Your task to perform on an android device: turn on bluetooth scan Image 0: 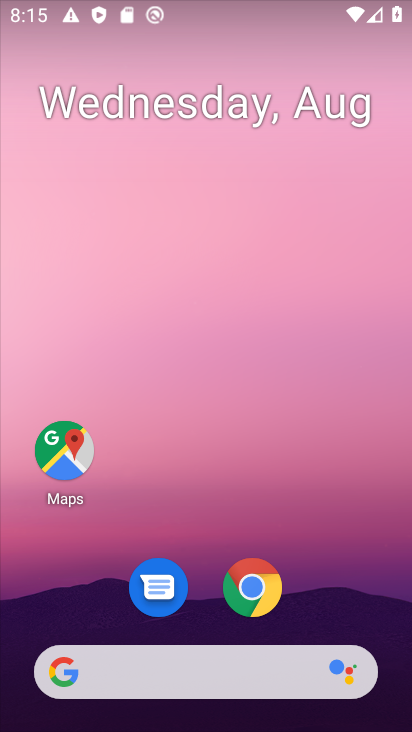
Step 0: drag from (273, 560) to (258, 227)
Your task to perform on an android device: turn on bluetooth scan Image 1: 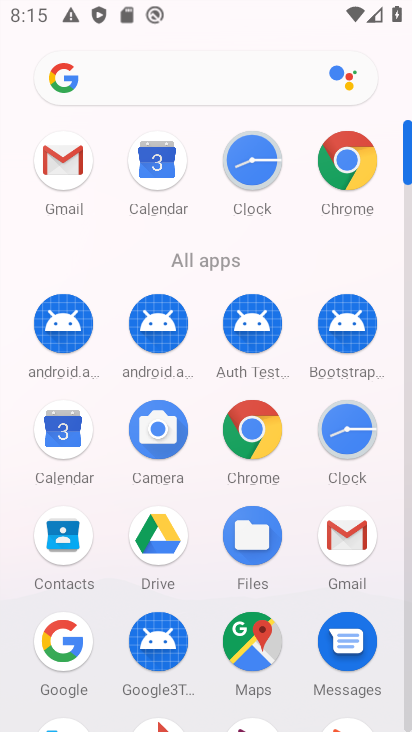
Step 1: drag from (187, 539) to (110, 317)
Your task to perform on an android device: turn on bluetooth scan Image 2: 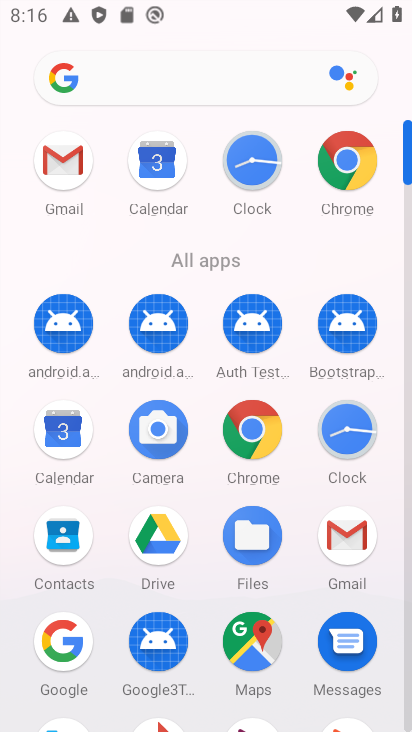
Step 2: drag from (293, 544) to (282, 303)
Your task to perform on an android device: turn on bluetooth scan Image 3: 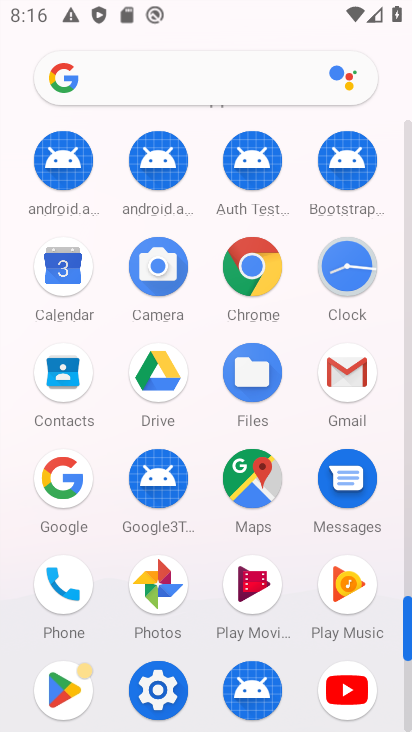
Step 3: drag from (286, 280) to (266, 0)
Your task to perform on an android device: turn on bluetooth scan Image 4: 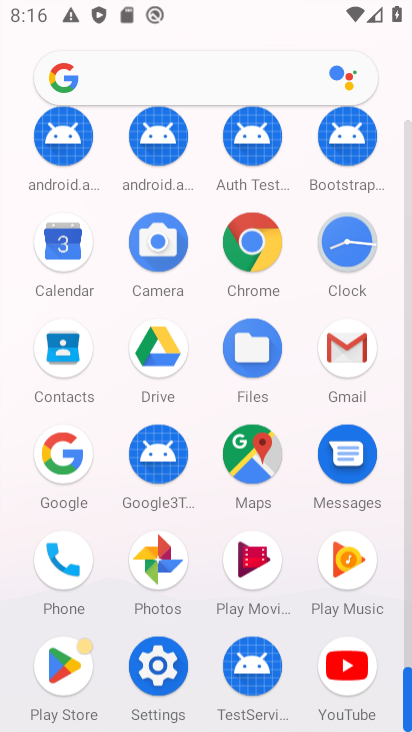
Step 4: drag from (269, 470) to (264, 121)
Your task to perform on an android device: turn on bluetooth scan Image 5: 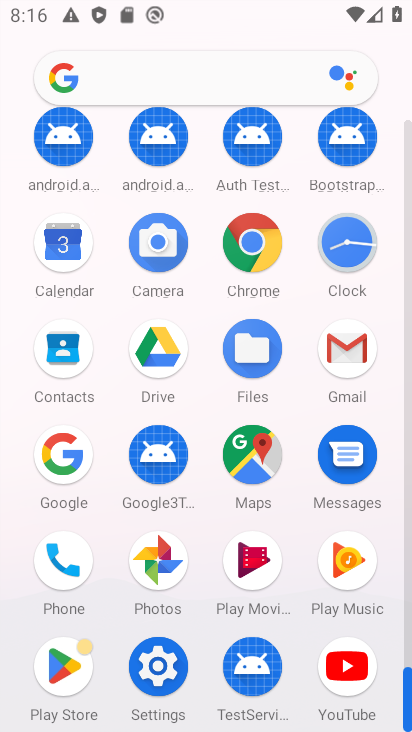
Step 5: click (156, 668)
Your task to perform on an android device: turn on bluetooth scan Image 6: 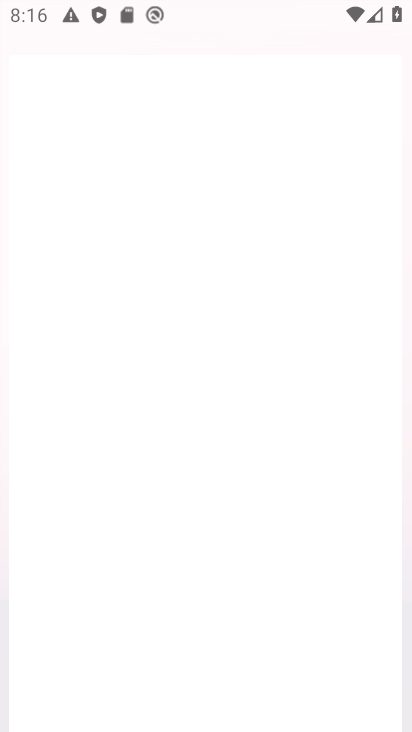
Step 6: click (153, 670)
Your task to perform on an android device: turn on bluetooth scan Image 7: 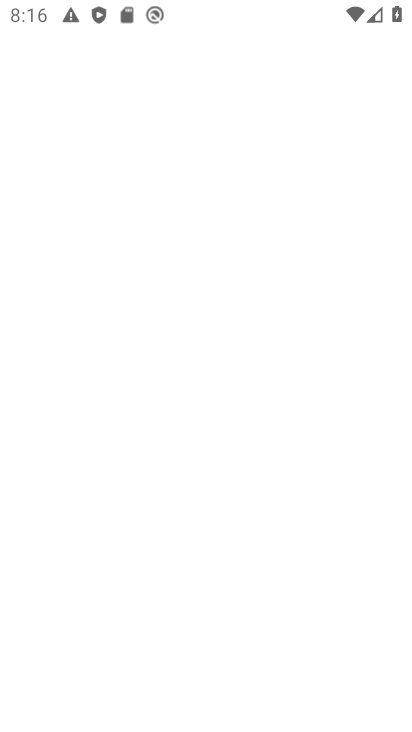
Step 7: click (152, 671)
Your task to perform on an android device: turn on bluetooth scan Image 8: 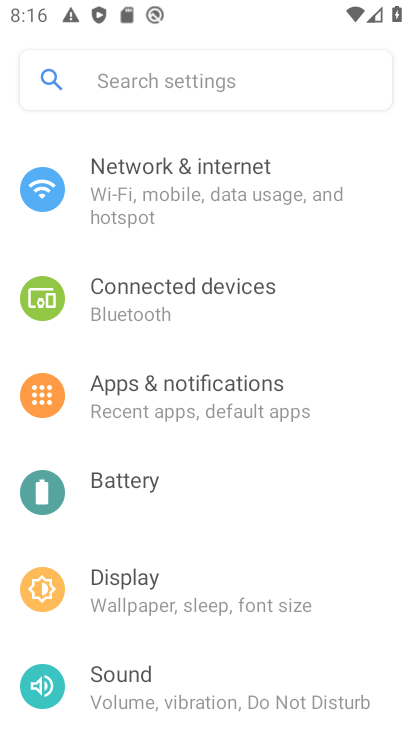
Step 8: click (153, 672)
Your task to perform on an android device: turn on bluetooth scan Image 9: 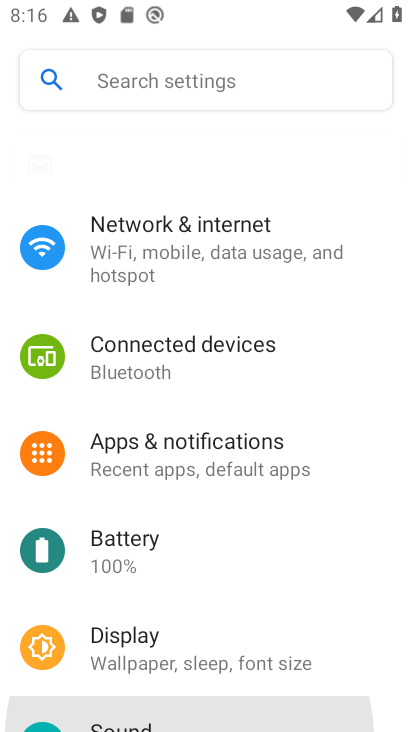
Step 9: click (153, 672)
Your task to perform on an android device: turn on bluetooth scan Image 10: 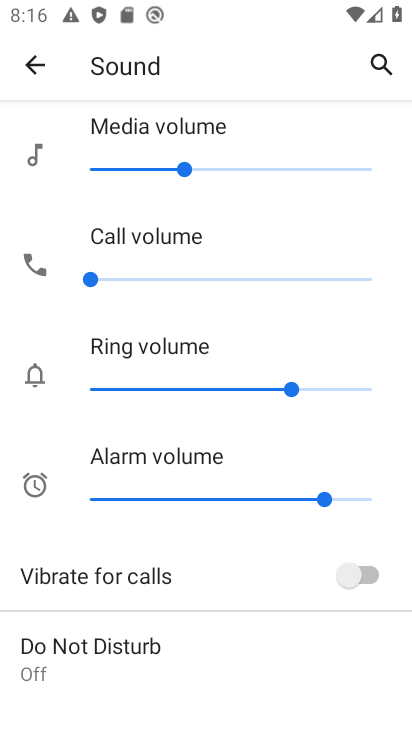
Step 10: click (34, 72)
Your task to perform on an android device: turn on bluetooth scan Image 11: 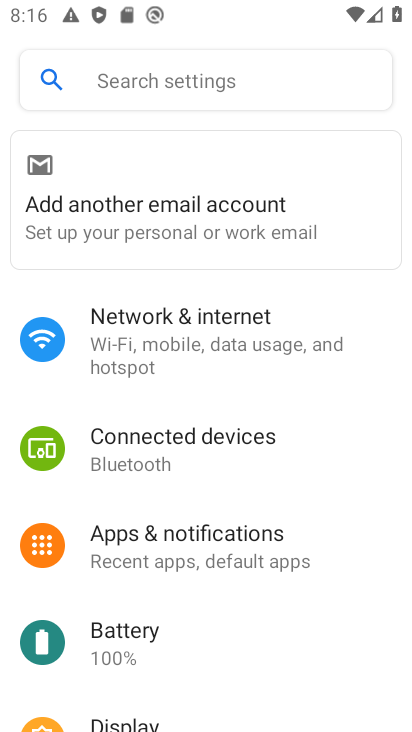
Step 11: drag from (148, 489) to (159, 203)
Your task to perform on an android device: turn on bluetooth scan Image 12: 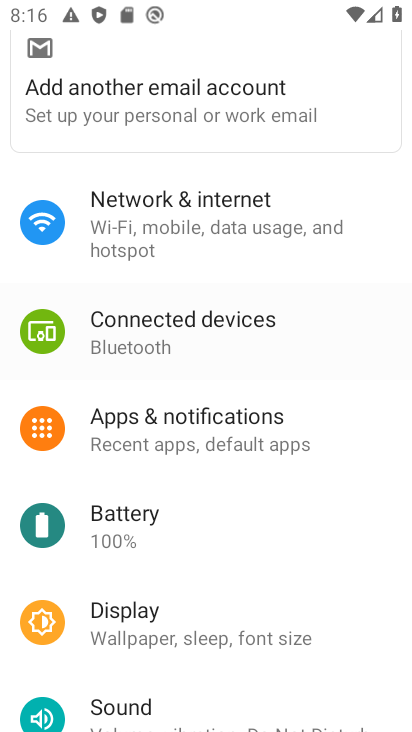
Step 12: drag from (60, 637) to (105, 271)
Your task to perform on an android device: turn on bluetooth scan Image 13: 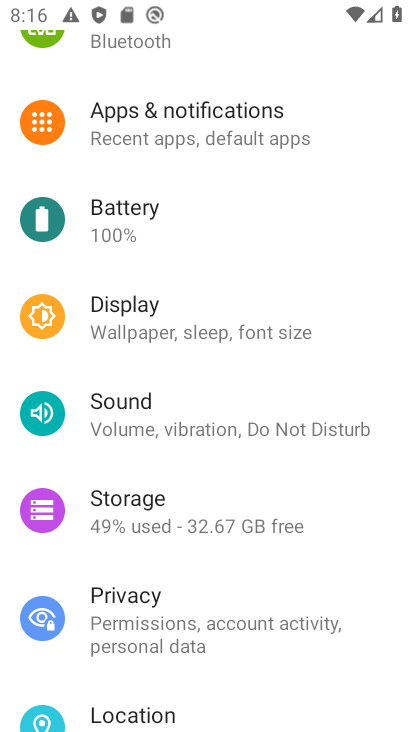
Step 13: drag from (126, 496) to (93, 103)
Your task to perform on an android device: turn on bluetooth scan Image 14: 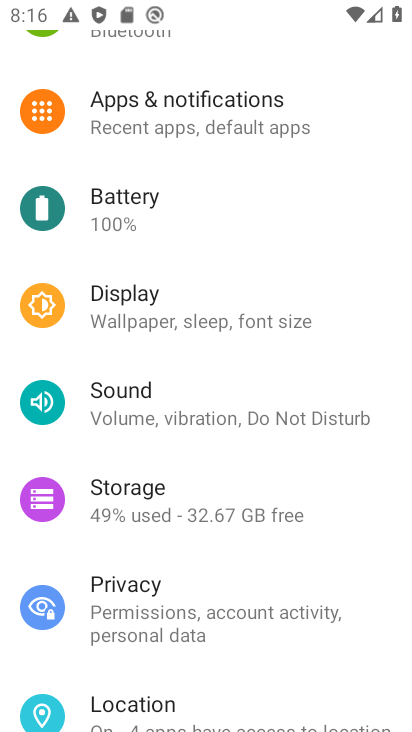
Step 14: drag from (242, 572) to (177, 94)
Your task to perform on an android device: turn on bluetooth scan Image 15: 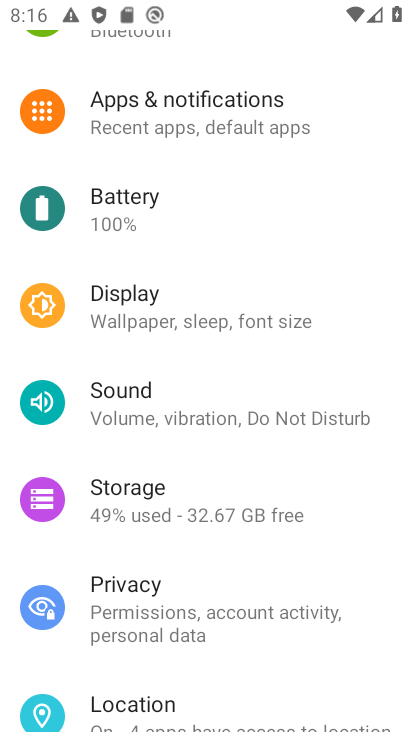
Step 15: drag from (198, 598) to (149, 295)
Your task to perform on an android device: turn on bluetooth scan Image 16: 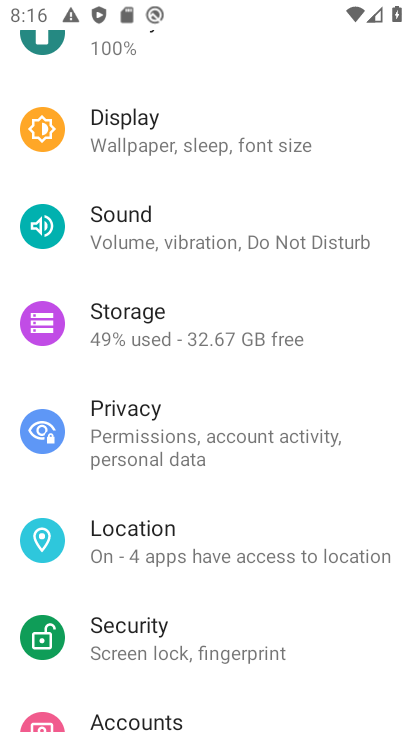
Step 16: drag from (167, 519) to (132, 127)
Your task to perform on an android device: turn on bluetooth scan Image 17: 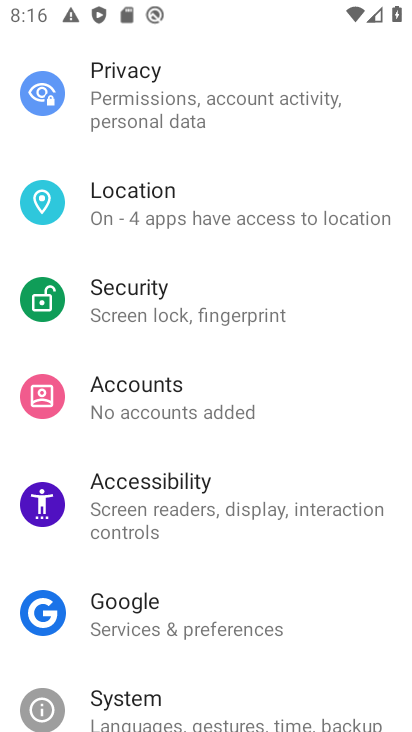
Step 17: drag from (151, 514) to (151, 274)
Your task to perform on an android device: turn on bluetooth scan Image 18: 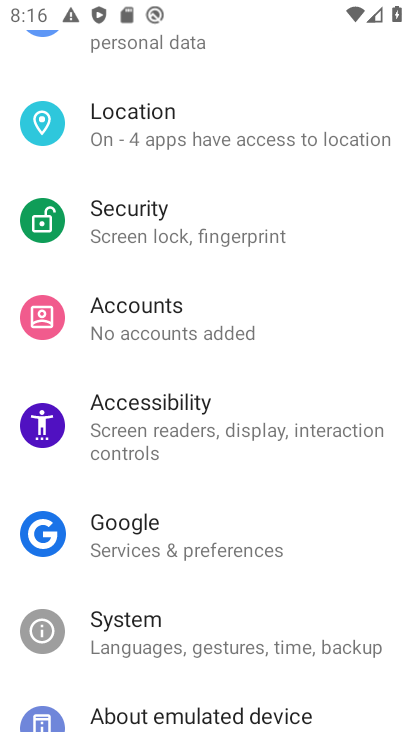
Step 18: drag from (171, 224) to (245, 684)
Your task to perform on an android device: turn on bluetooth scan Image 19: 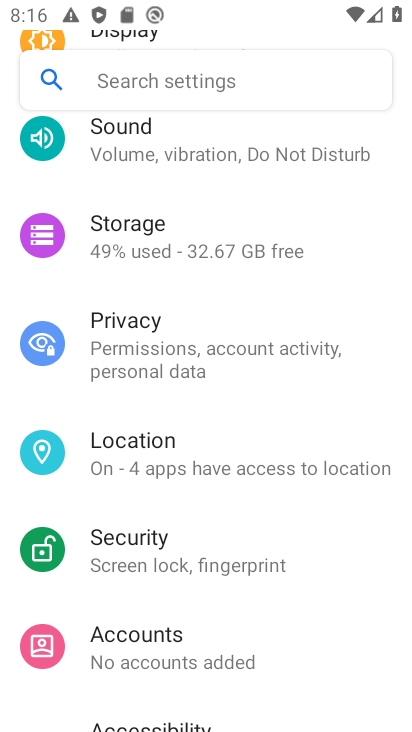
Step 19: drag from (178, 292) to (213, 629)
Your task to perform on an android device: turn on bluetooth scan Image 20: 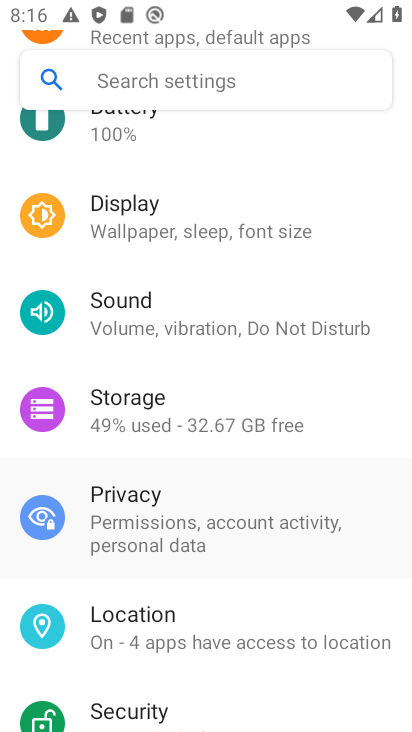
Step 20: drag from (155, 332) to (168, 639)
Your task to perform on an android device: turn on bluetooth scan Image 21: 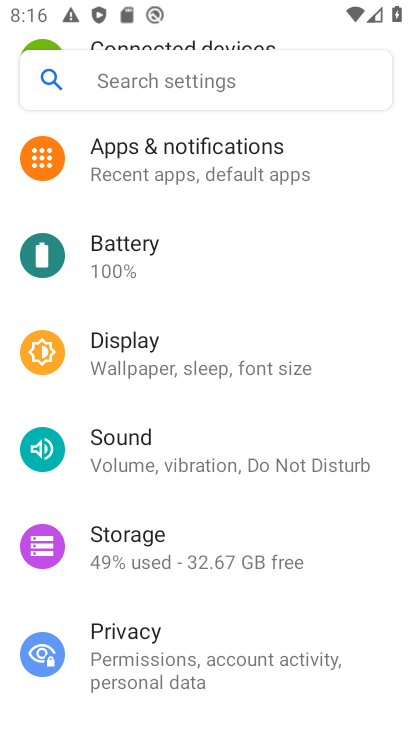
Step 21: drag from (137, 219) to (144, 588)
Your task to perform on an android device: turn on bluetooth scan Image 22: 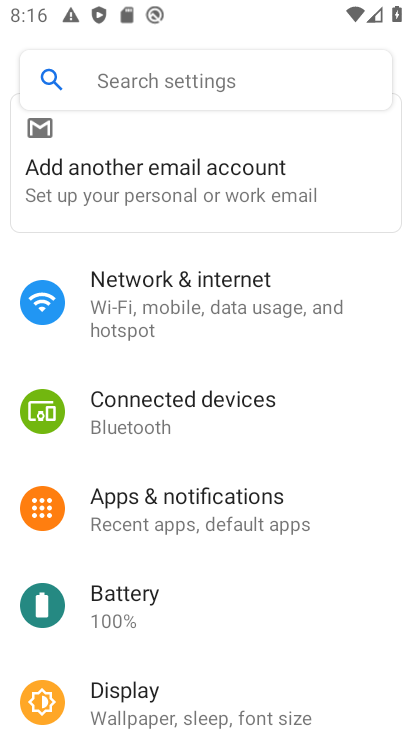
Step 22: drag from (124, 295) to (139, 602)
Your task to perform on an android device: turn on bluetooth scan Image 23: 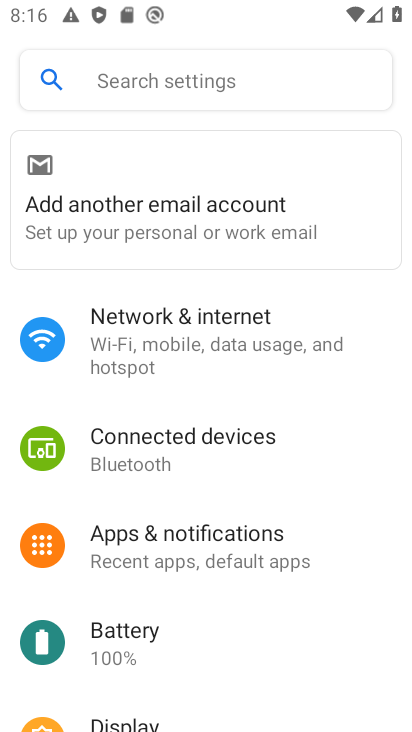
Step 23: drag from (136, 646) to (76, 211)
Your task to perform on an android device: turn on bluetooth scan Image 24: 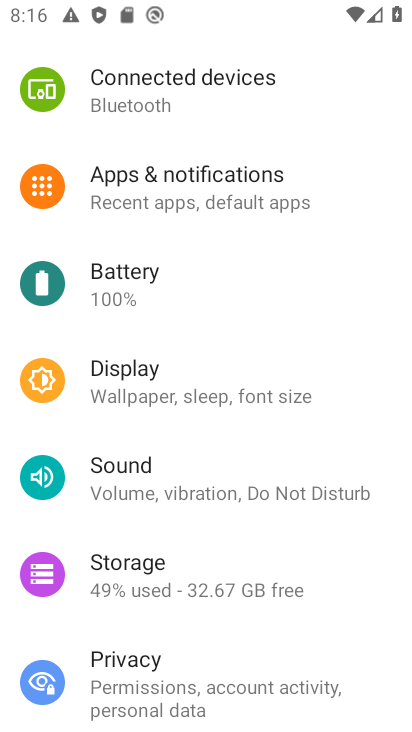
Step 24: drag from (176, 512) to (158, 133)
Your task to perform on an android device: turn on bluetooth scan Image 25: 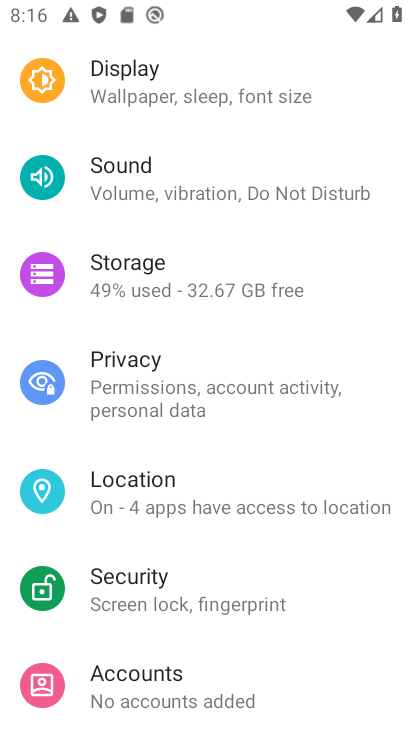
Step 25: drag from (242, 462) to (181, 115)
Your task to perform on an android device: turn on bluetooth scan Image 26: 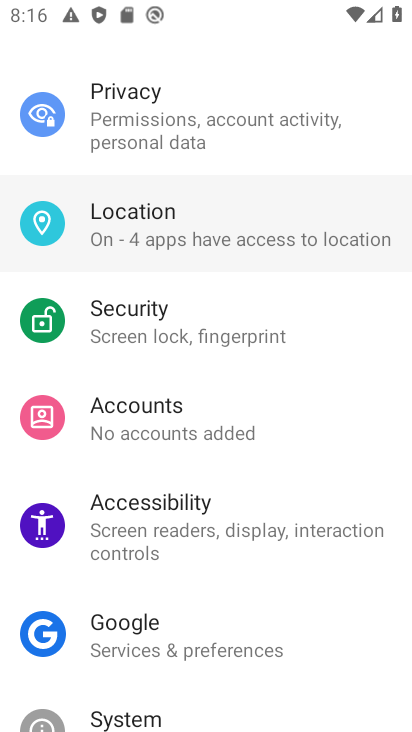
Step 26: drag from (210, 535) to (191, 221)
Your task to perform on an android device: turn on bluetooth scan Image 27: 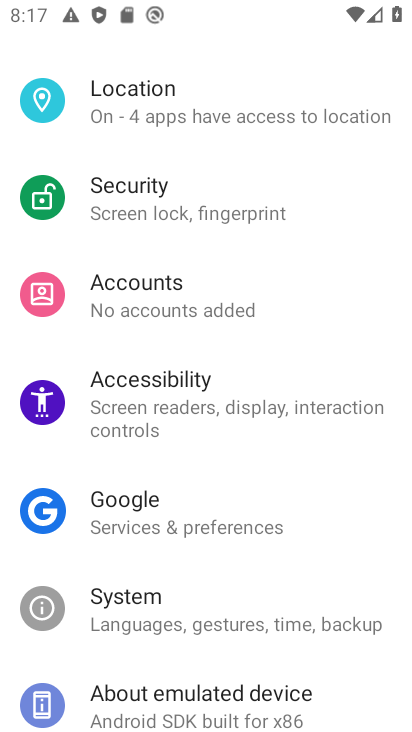
Step 27: click (170, 106)
Your task to perform on an android device: turn on bluetooth scan Image 28: 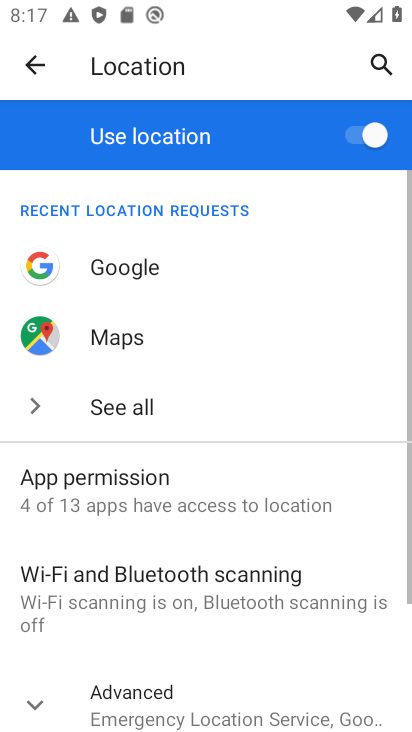
Step 28: click (154, 587)
Your task to perform on an android device: turn on bluetooth scan Image 29: 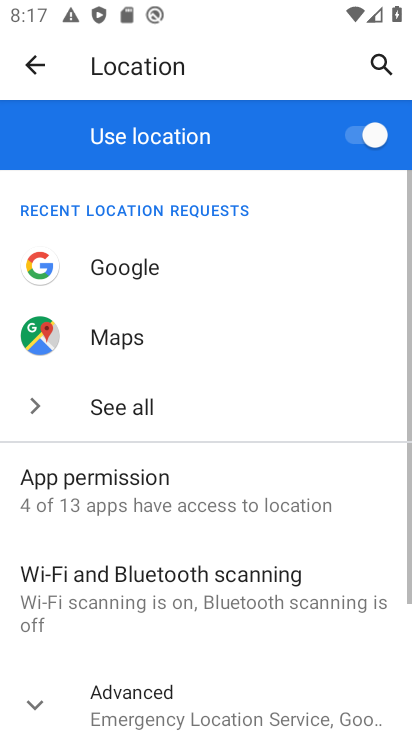
Step 29: click (154, 587)
Your task to perform on an android device: turn on bluetooth scan Image 30: 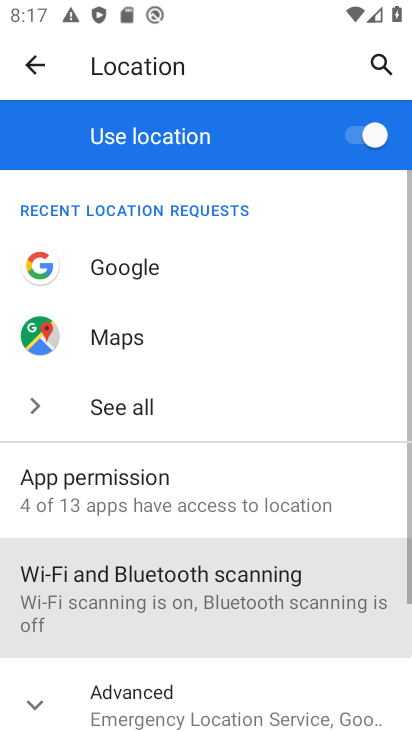
Step 30: click (155, 587)
Your task to perform on an android device: turn on bluetooth scan Image 31: 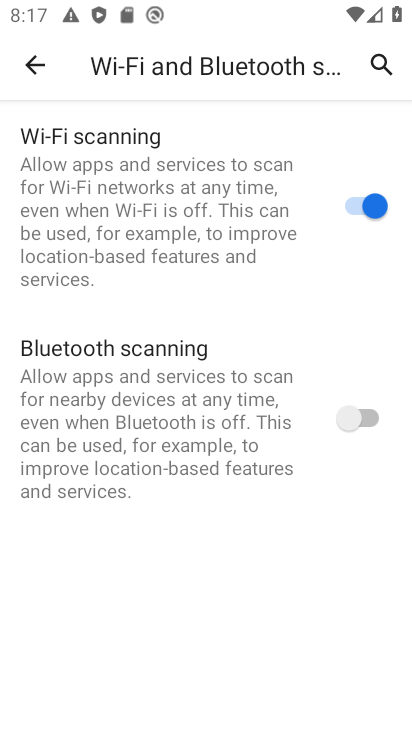
Step 31: click (330, 410)
Your task to perform on an android device: turn on bluetooth scan Image 32: 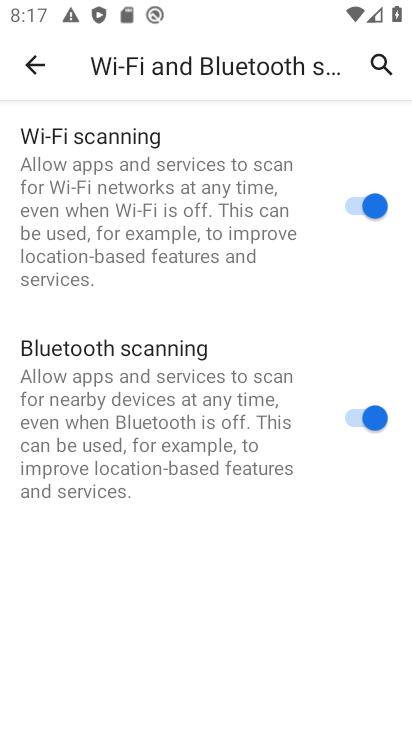
Step 32: task complete